Your task to perform on an android device: Open wifi settings Image 0: 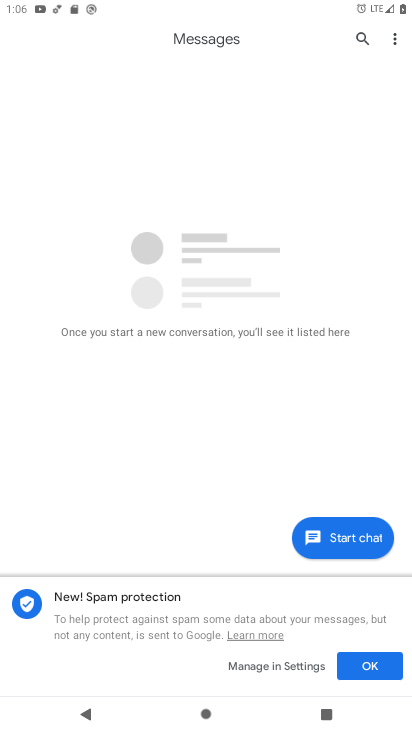
Step 0: press home button
Your task to perform on an android device: Open wifi settings Image 1: 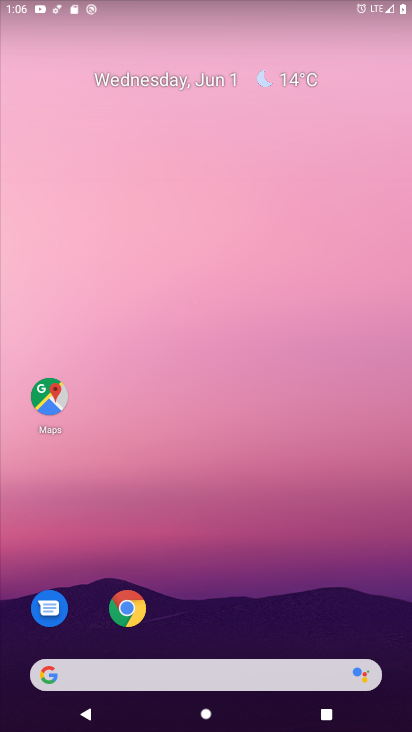
Step 1: drag from (234, 653) to (311, 171)
Your task to perform on an android device: Open wifi settings Image 2: 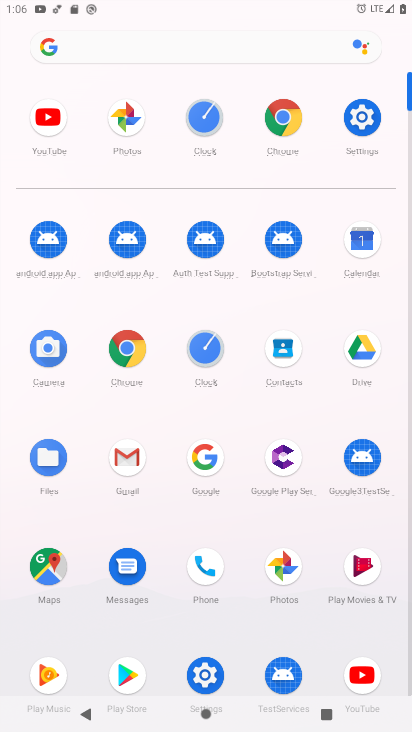
Step 2: click (368, 120)
Your task to perform on an android device: Open wifi settings Image 3: 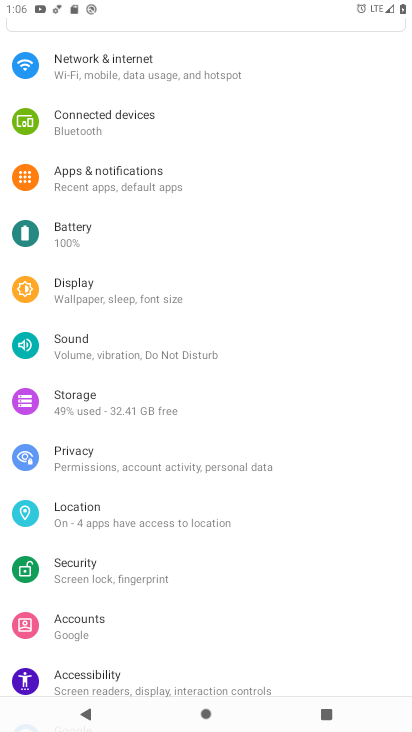
Step 3: drag from (129, 113) to (131, 248)
Your task to perform on an android device: Open wifi settings Image 4: 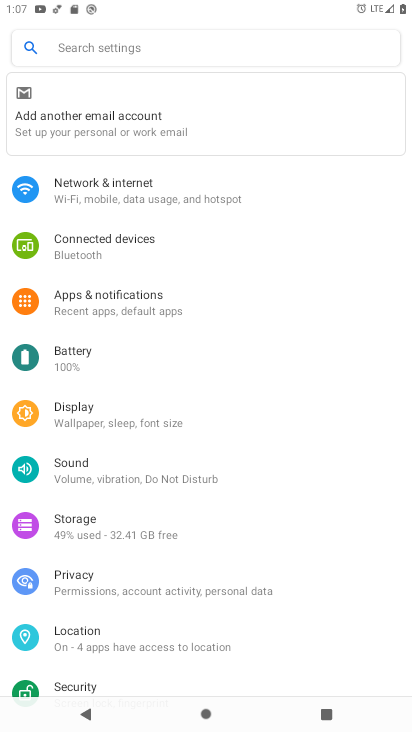
Step 4: click (125, 203)
Your task to perform on an android device: Open wifi settings Image 5: 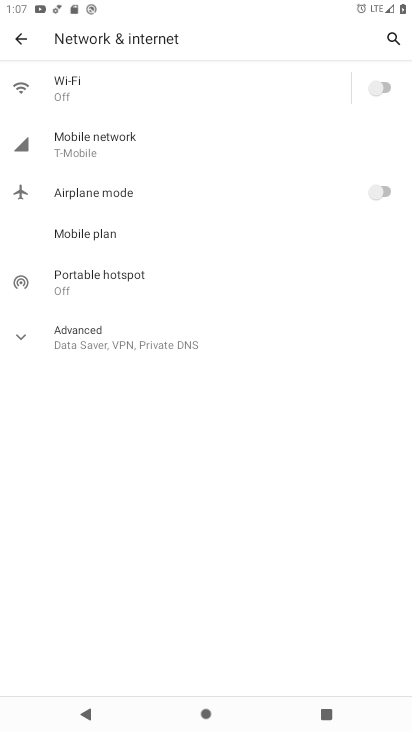
Step 5: click (139, 89)
Your task to perform on an android device: Open wifi settings Image 6: 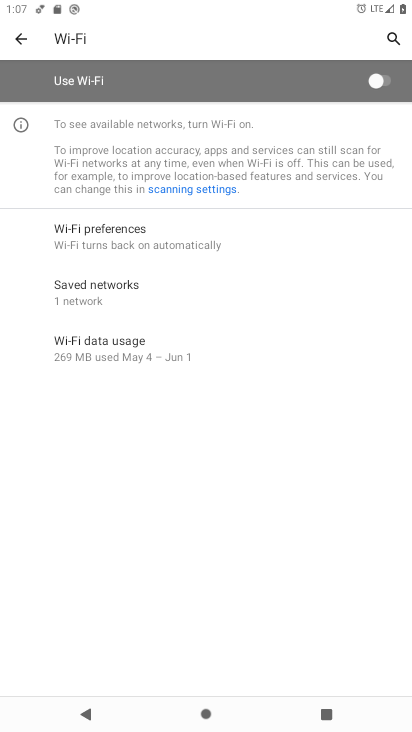
Step 6: task complete